Your task to perform on an android device: turn on showing notifications on the lock screen Image 0: 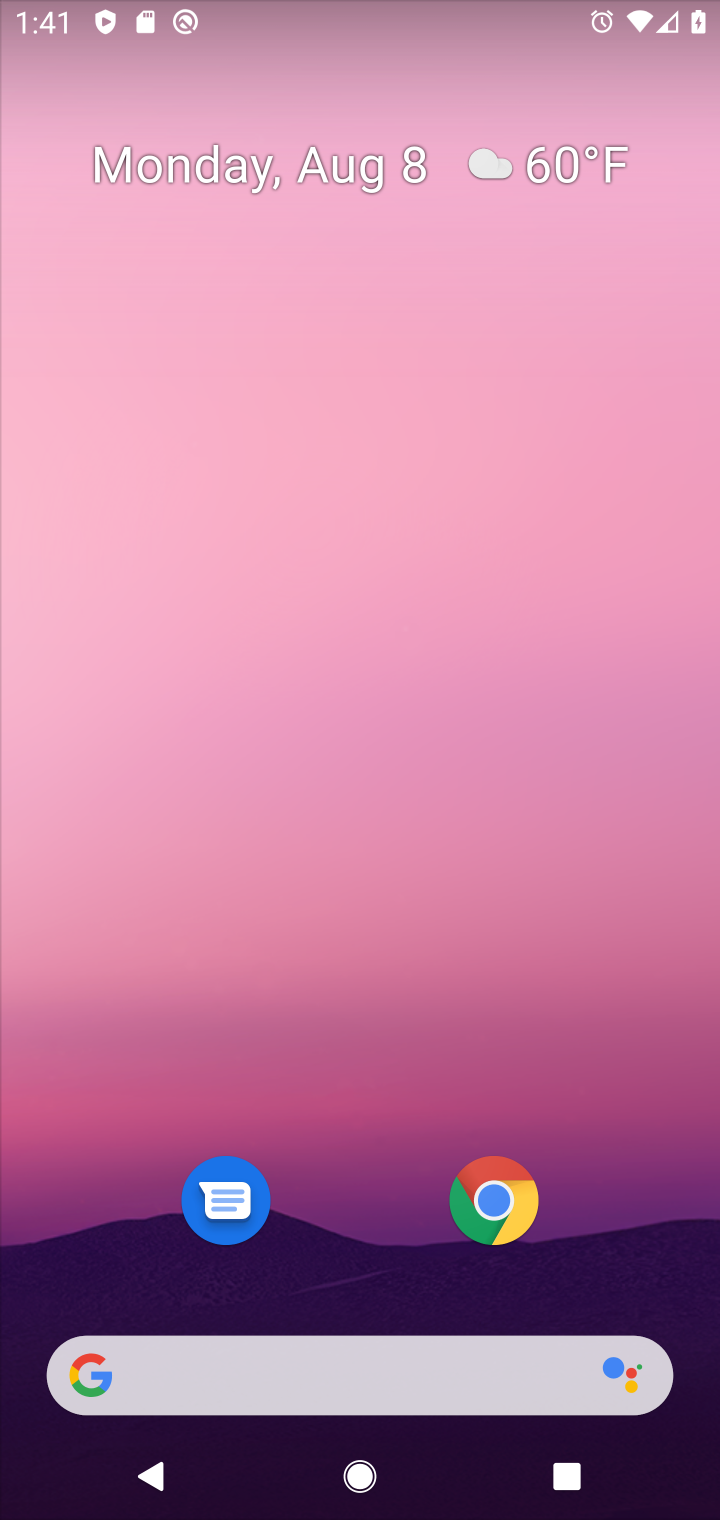
Step 0: press home button
Your task to perform on an android device: turn on showing notifications on the lock screen Image 1: 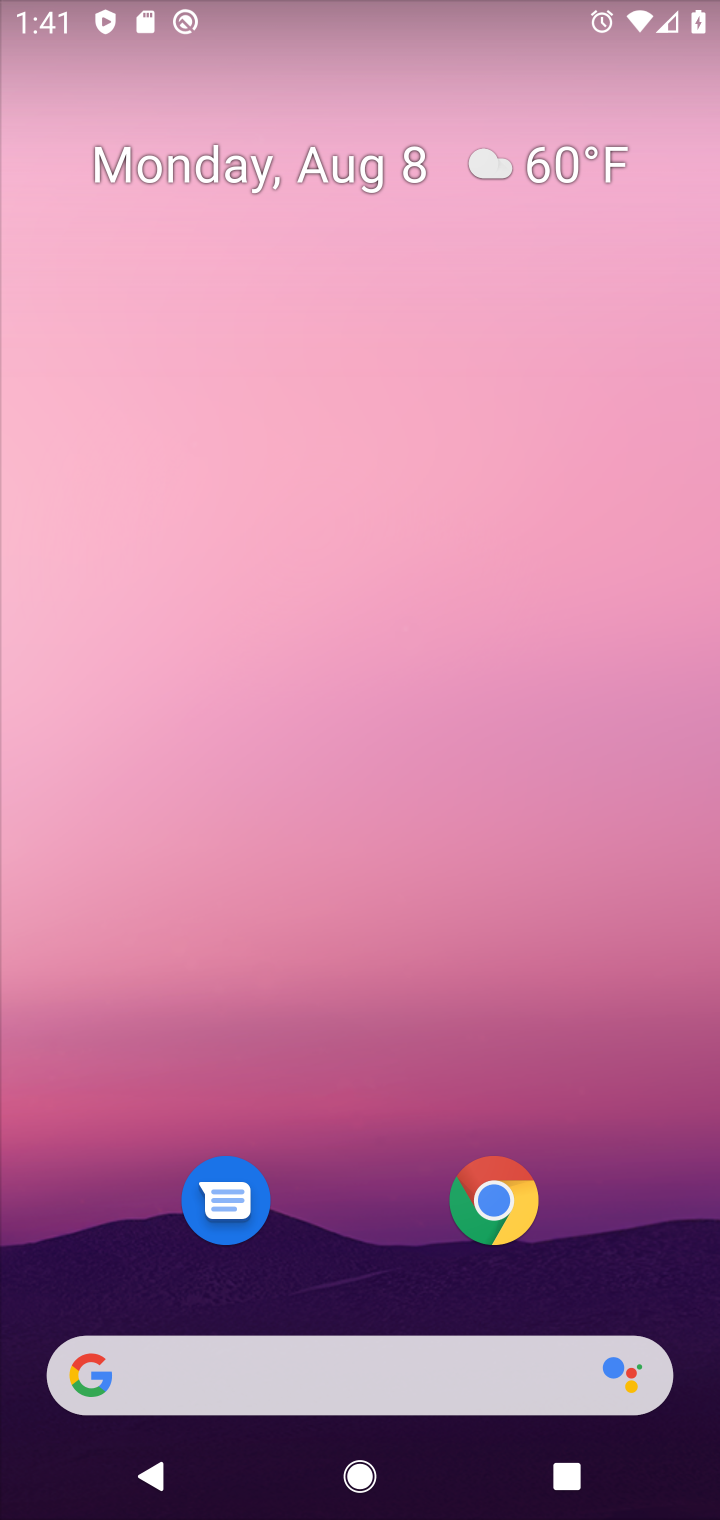
Step 1: drag from (369, 1268) to (471, 104)
Your task to perform on an android device: turn on showing notifications on the lock screen Image 2: 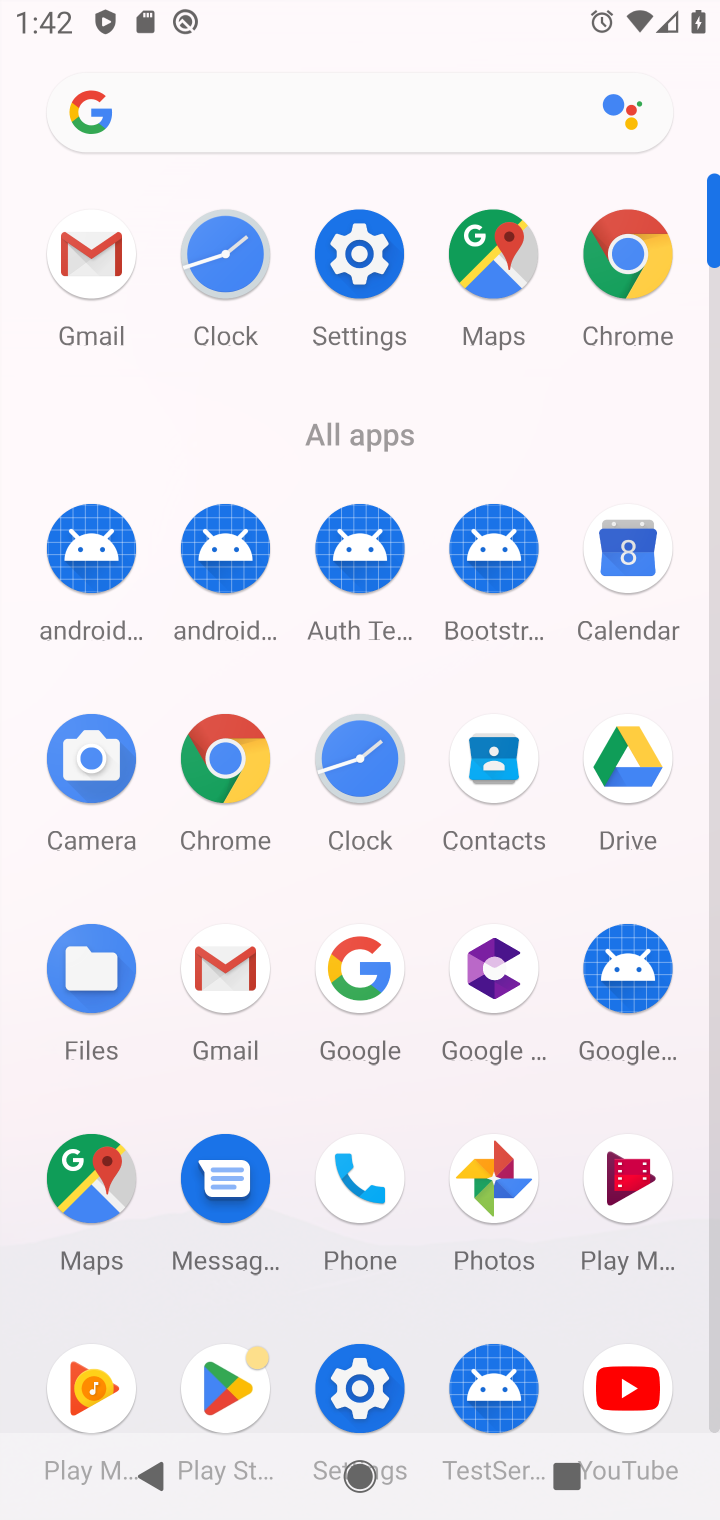
Step 2: click (355, 246)
Your task to perform on an android device: turn on showing notifications on the lock screen Image 3: 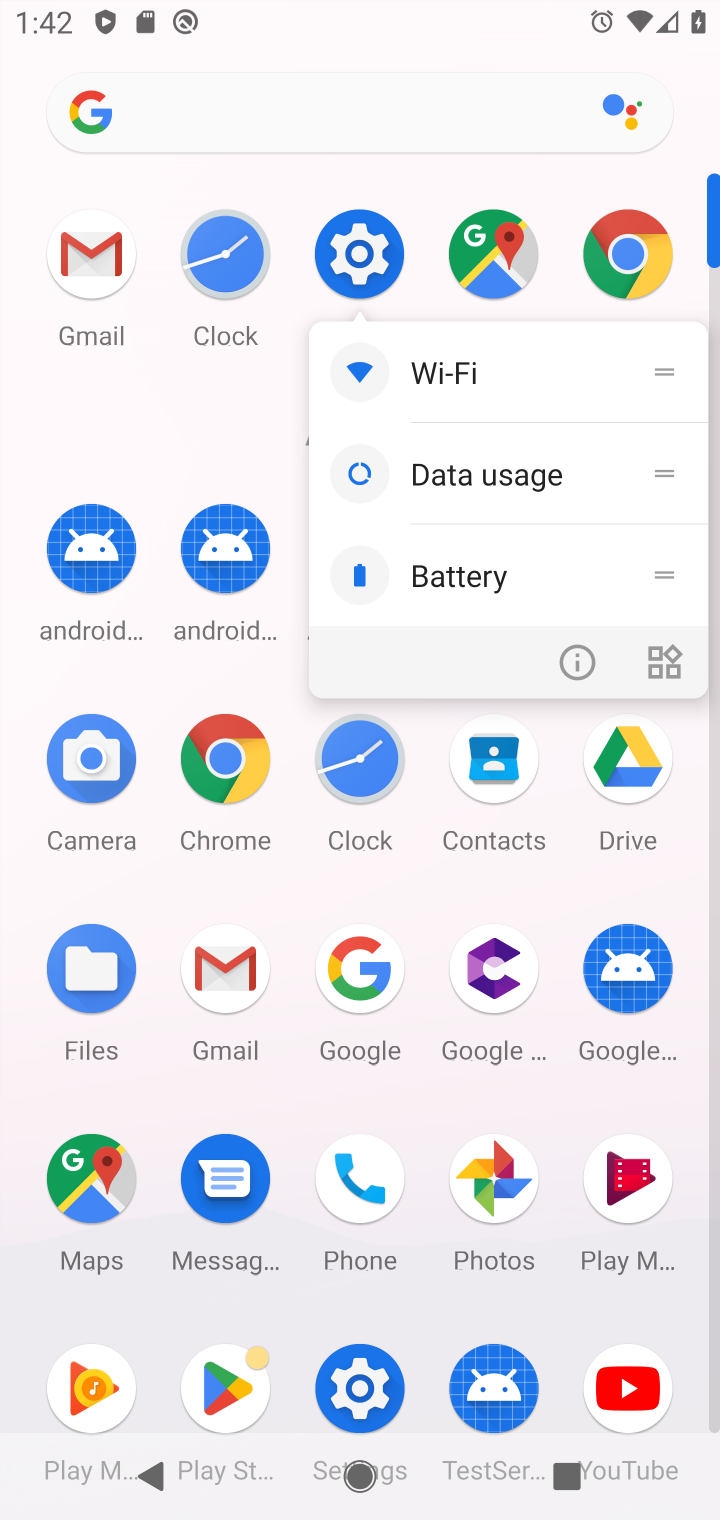
Step 3: click (364, 239)
Your task to perform on an android device: turn on showing notifications on the lock screen Image 4: 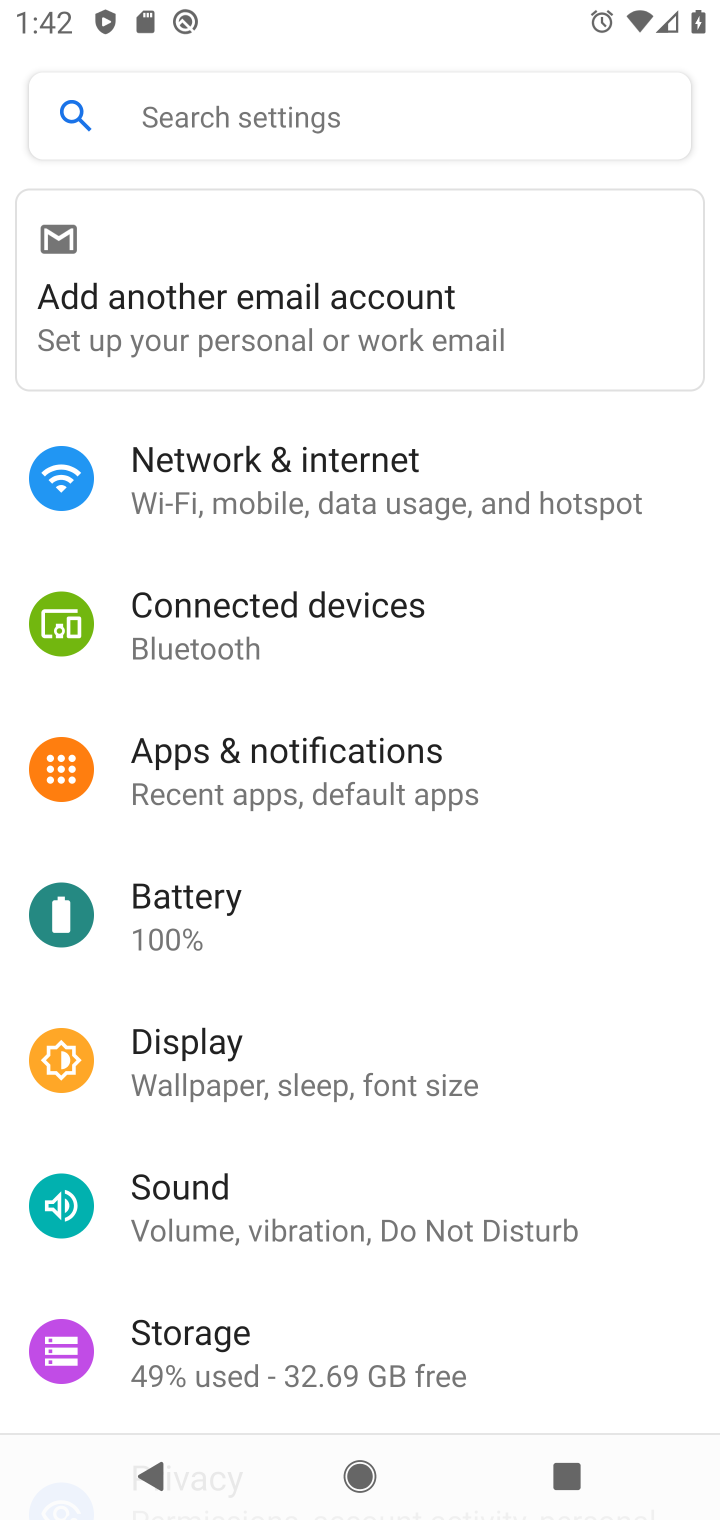
Step 4: click (339, 757)
Your task to perform on an android device: turn on showing notifications on the lock screen Image 5: 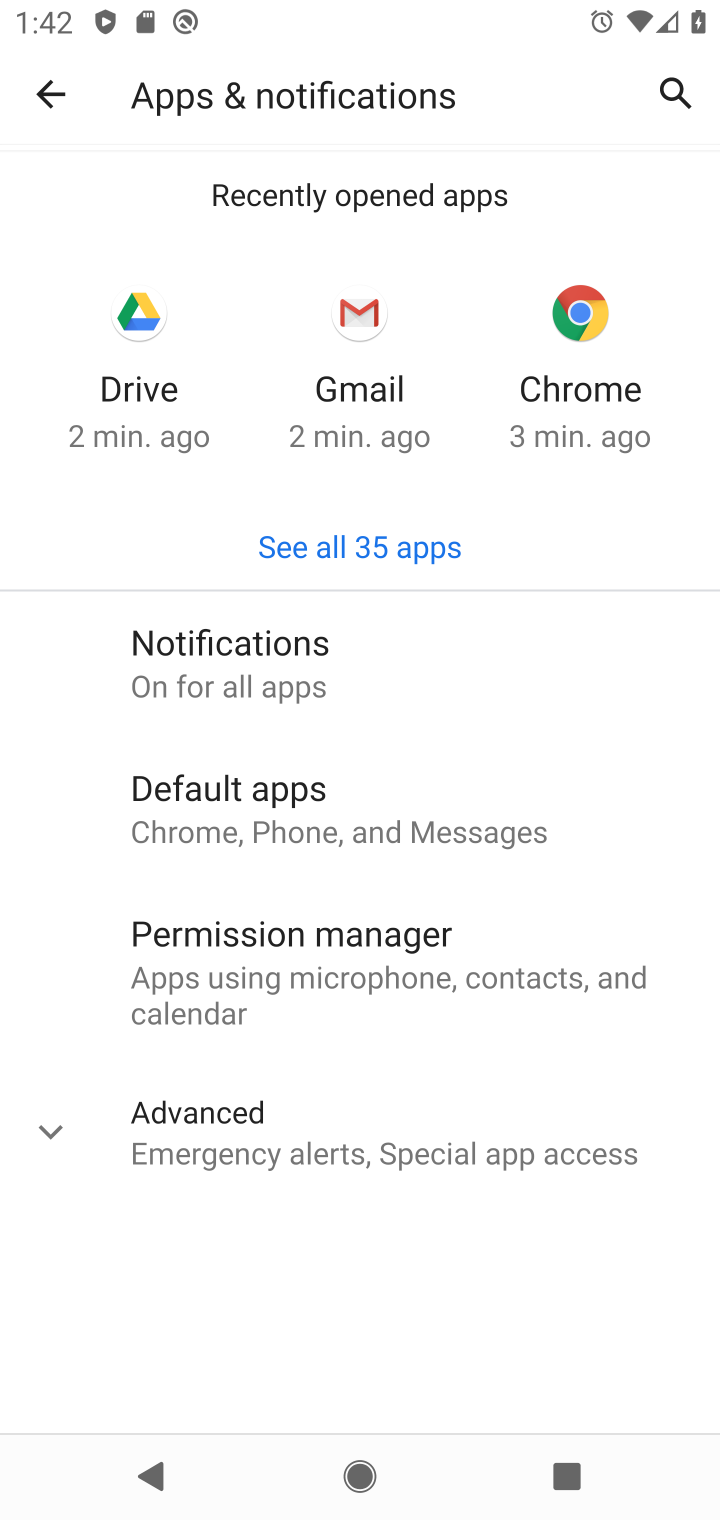
Step 5: click (328, 659)
Your task to perform on an android device: turn on showing notifications on the lock screen Image 6: 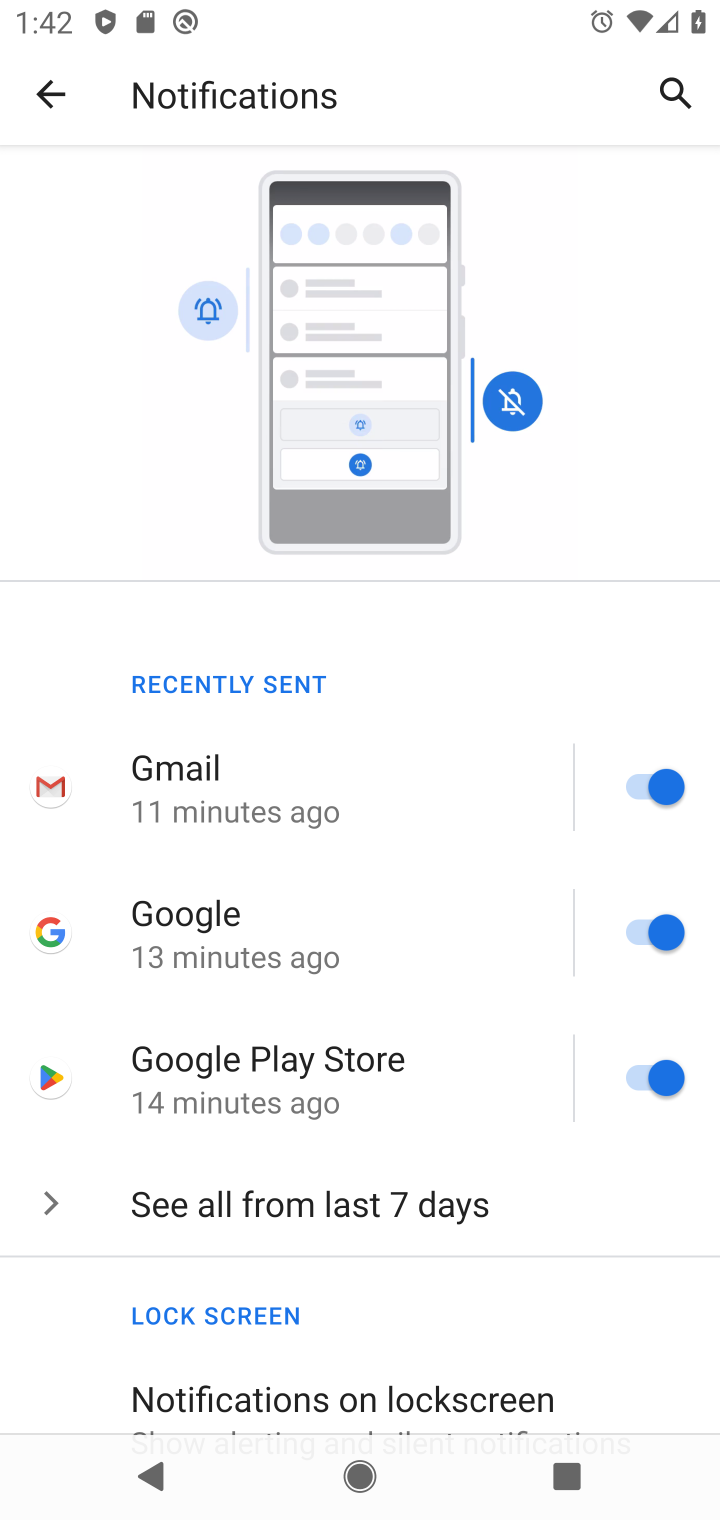
Step 6: click (345, 648)
Your task to perform on an android device: turn on showing notifications on the lock screen Image 7: 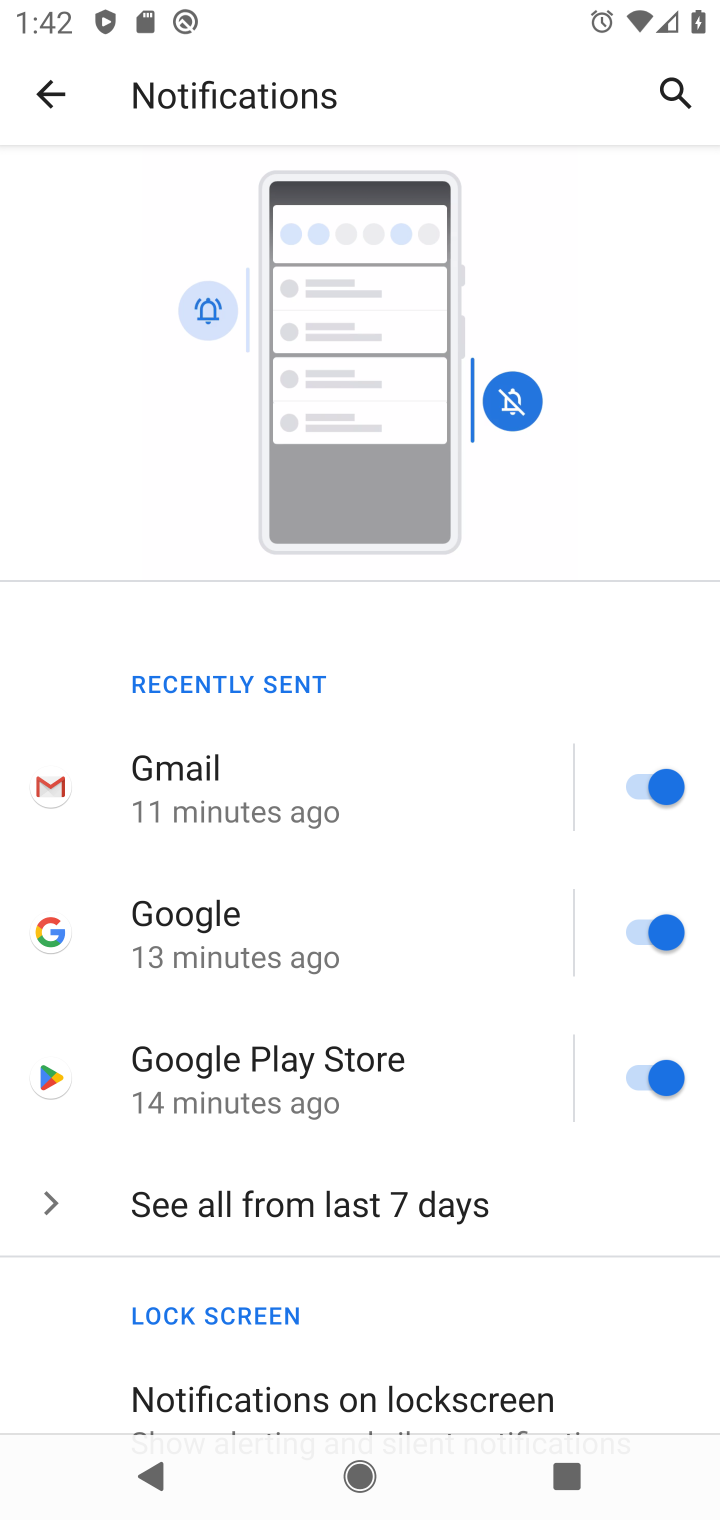
Step 7: click (409, 1384)
Your task to perform on an android device: turn on showing notifications on the lock screen Image 8: 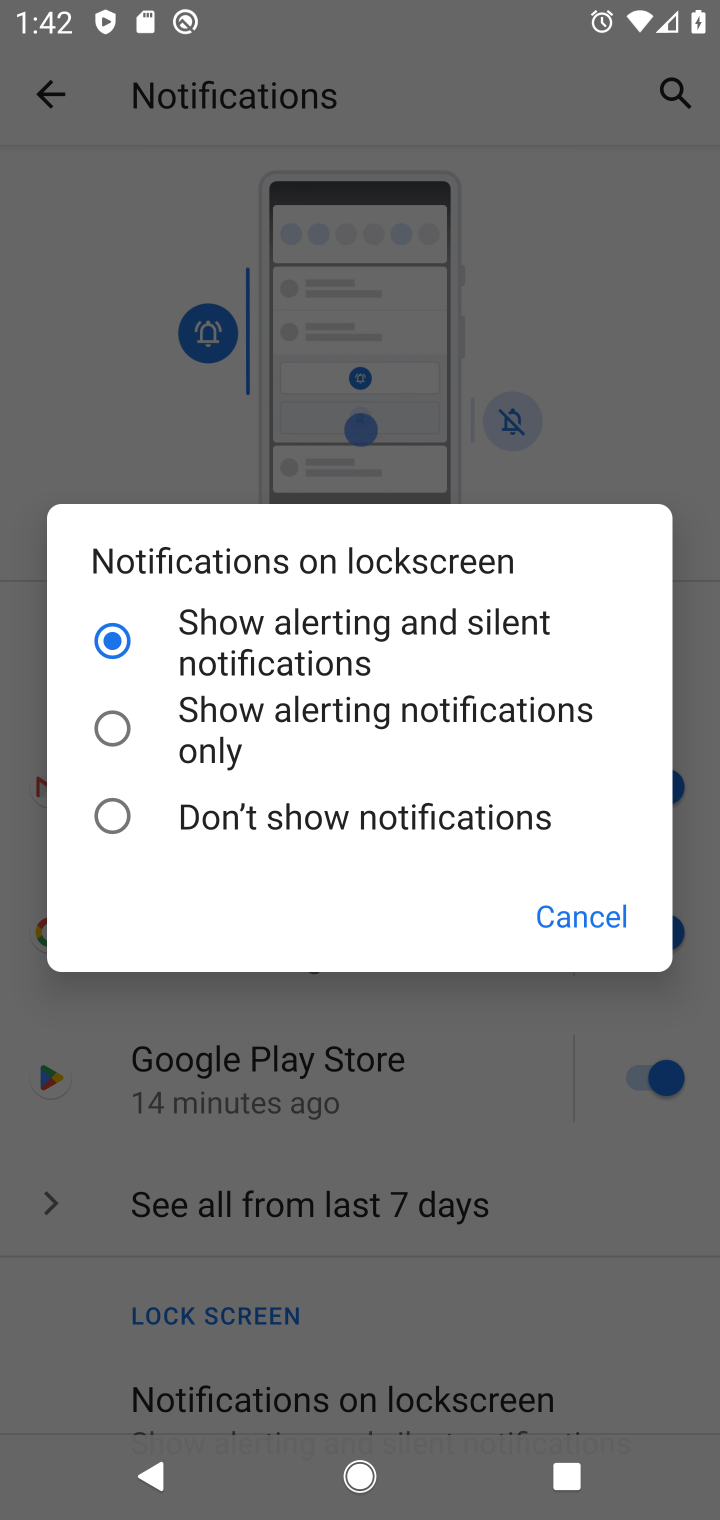
Step 8: click (108, 729)
Your task to perform on an android device: turn on showing notifications on the lock screen Image 9: 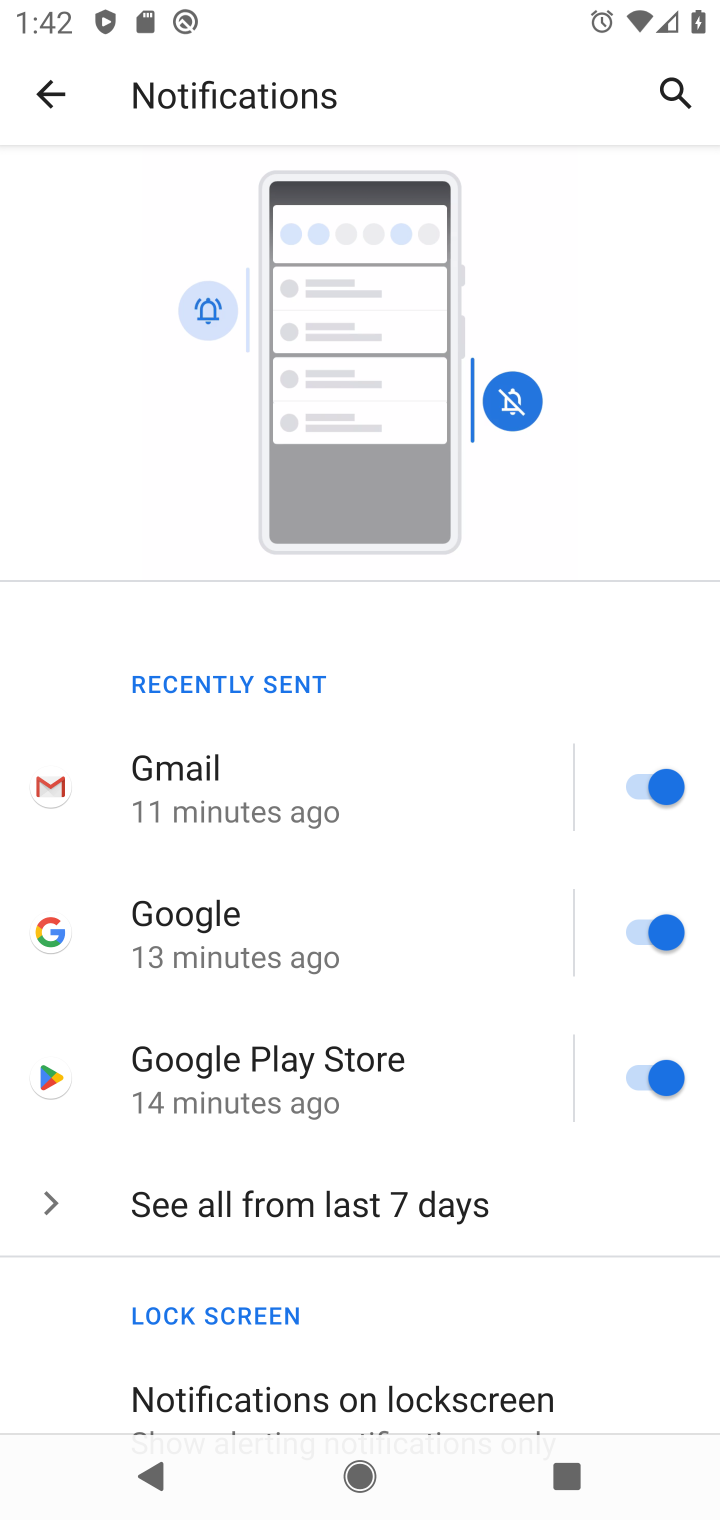
Step 9: task complete